Your task to perform on an android device: Play the last video I watched on Youtube Image 0: 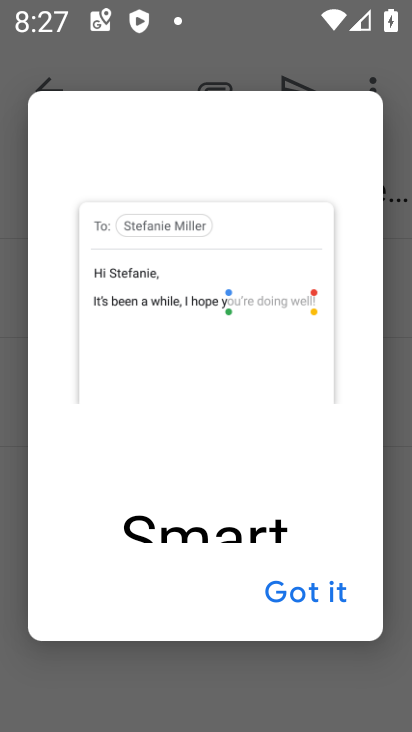
Step 0: press home button
Your task to perform on an android device: Play the last video I watched on Youtube Image 1: 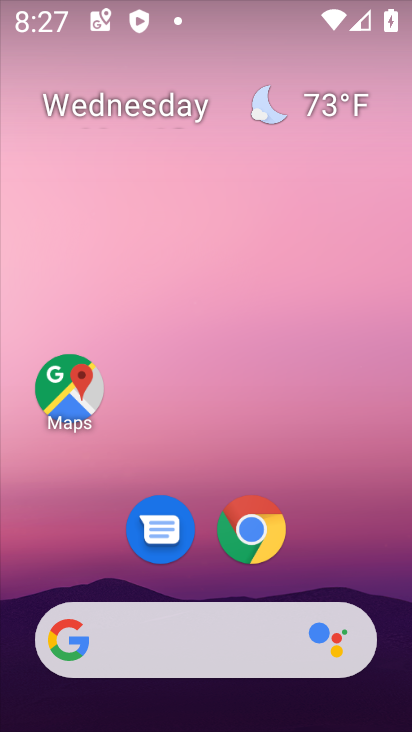
Step 1: drag from (369, 565) to (361, 242)
Your task to perform on an android device: Play the last video I watched on Youtube Image 2: 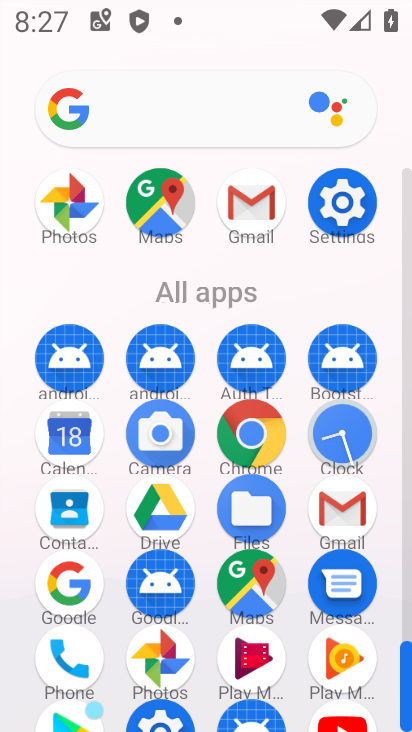
Step 2: drag from (384, 623) to (389, 466)
Your task to perform on an android device: Play the last video I watched on Youtube Image 3: 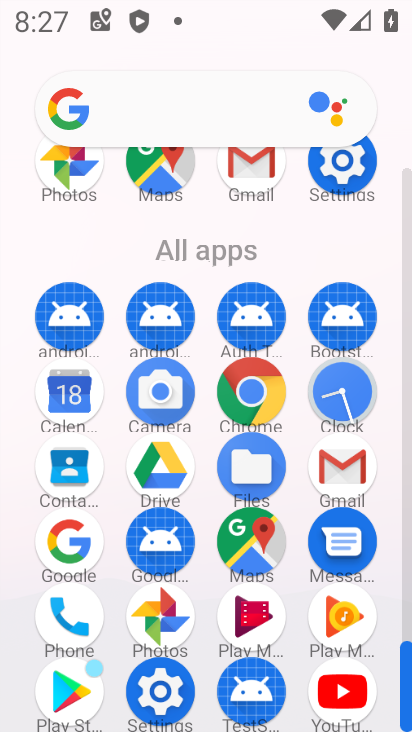
Step 3: click (345, 686)
Your task to perform on an android device: Play the last video I watched on Youtube Image 4: 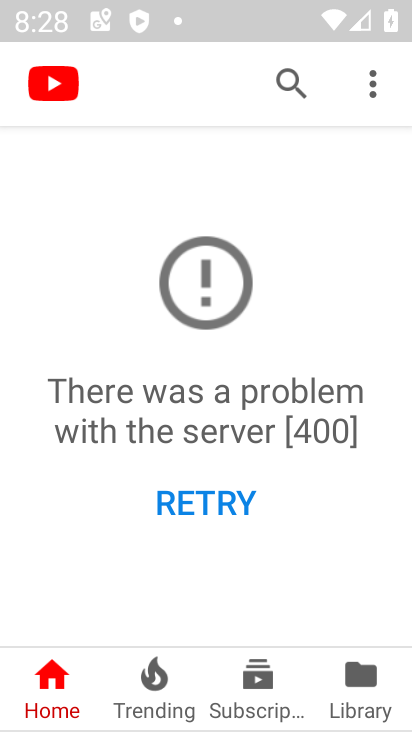
Step 4: click (370, 695)
Your task to perform on an android device: Play the last video I watched on Youtube Image 5: 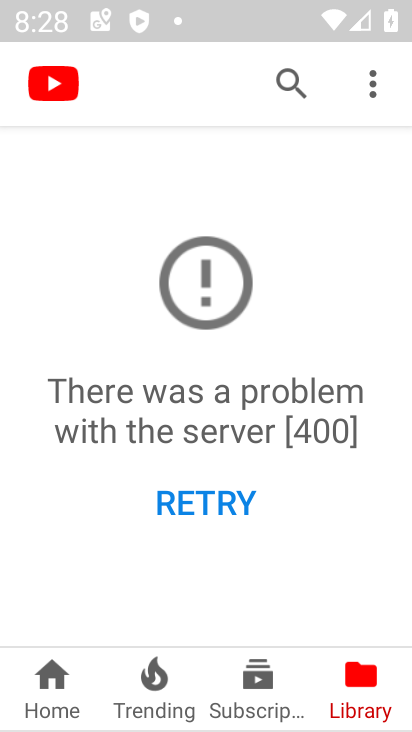
Step 5: task complete